Your task to perform on an android device: Do I have any events today? Image 0: 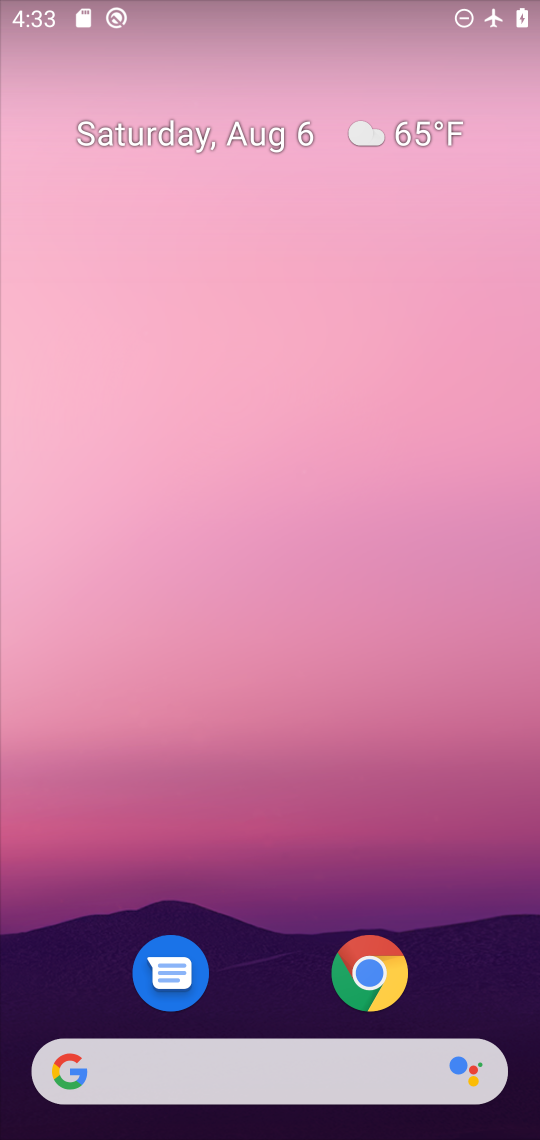
Step 0: drag from (269, 895) to (319, 43)
Your task to perform on an android device: Do I have any events today? Image 1: 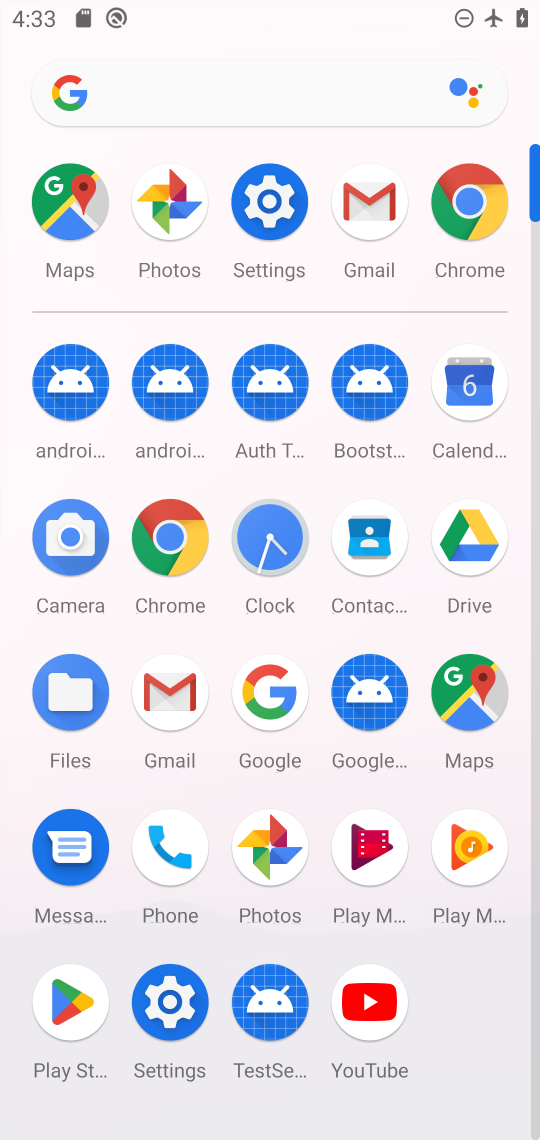
Step 1: click (464, 382)
Your task to perform on an android device: Do I have any events today? Image 2: 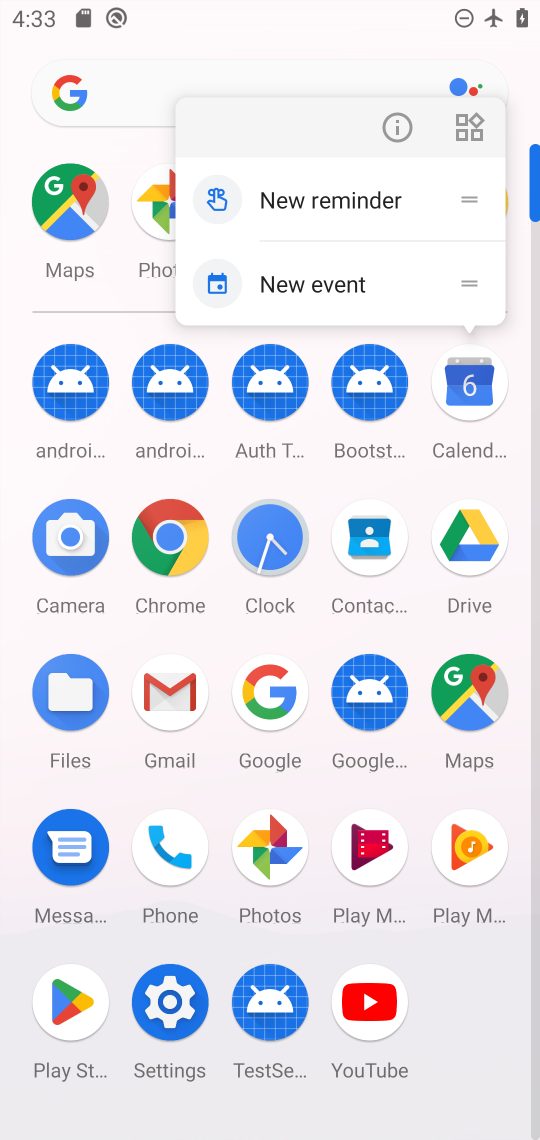
Step 2: click (459, 375)
Your task to perform on an android device: Do I have any events today? Image 3: 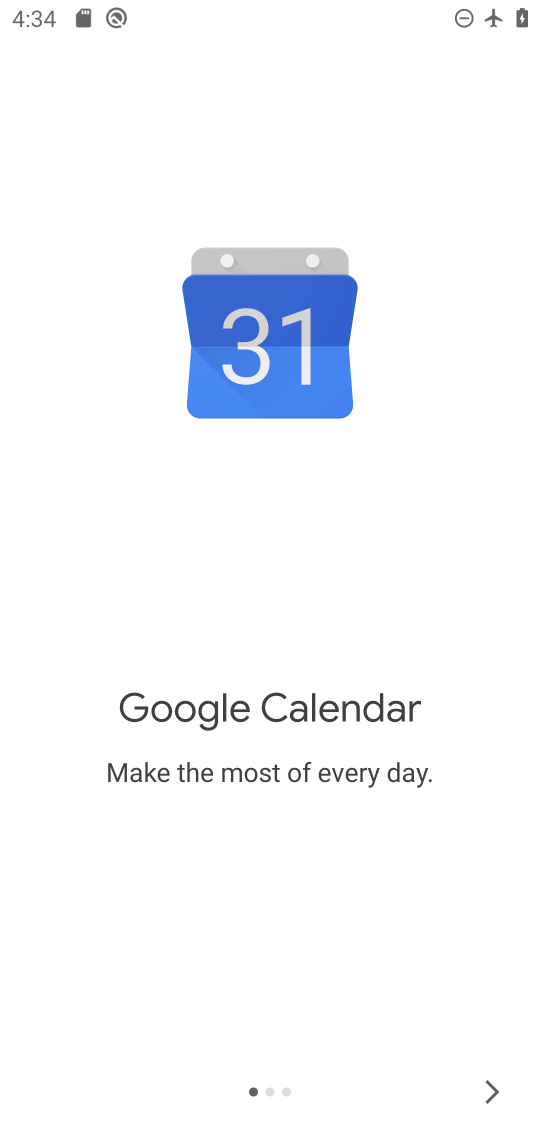
Step 3: click (473, 1088)
Your task to perform on an android device: Do I have any events today? Image 4: 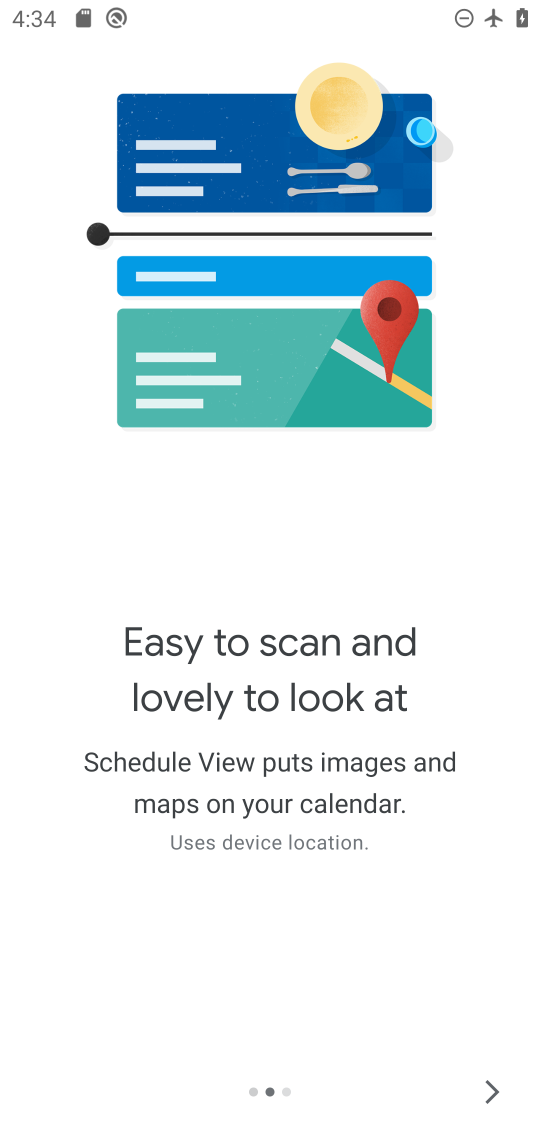
Step 4: click (473, 1088)
Your task to perform on an android device: Do I have any events today? Image 5: 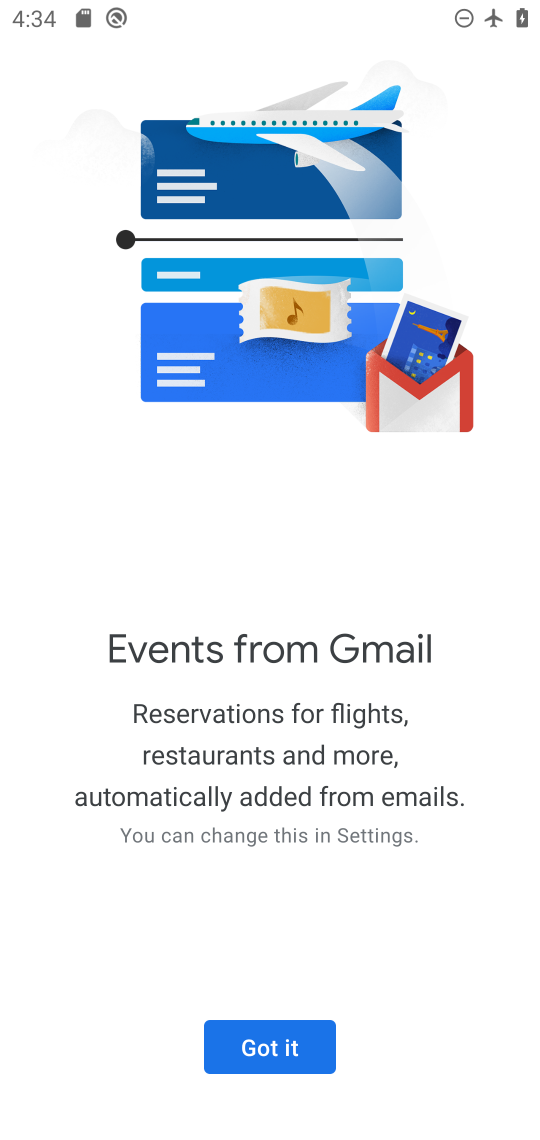
Step 5: click (297, 1058)
Your task to perform on an android device: Do I have any events today? Image 6: 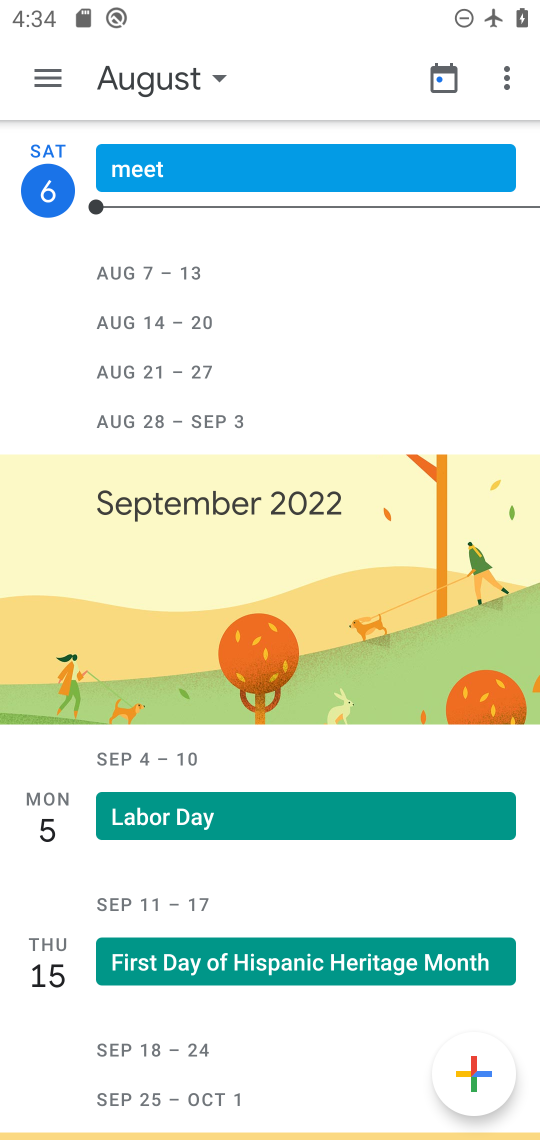
Step 6: task complete